Your task to perform on an android device: Open Chrome and go to the settings page Image 0: 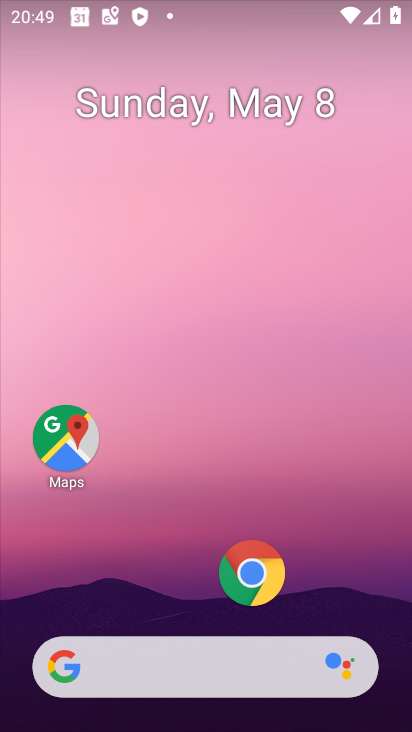
Step 0: click (249, 571)
Your task to perform on an android device: Open Chrome and go to the settings page Image 1: 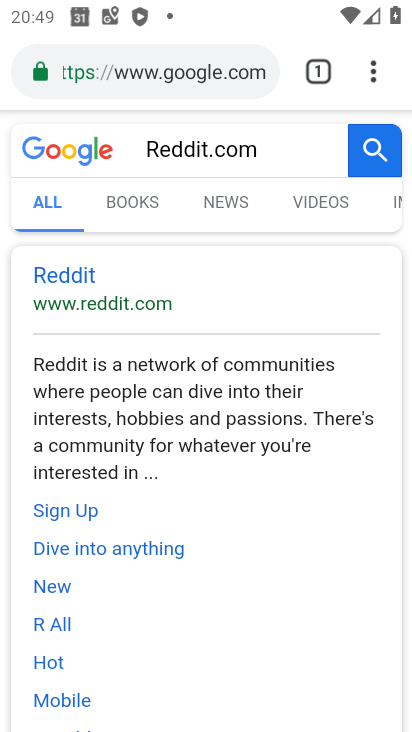
Step 1: click (180, 74)
Your task to perform on an android device: Open Chrome and go to the settings page Image 2: 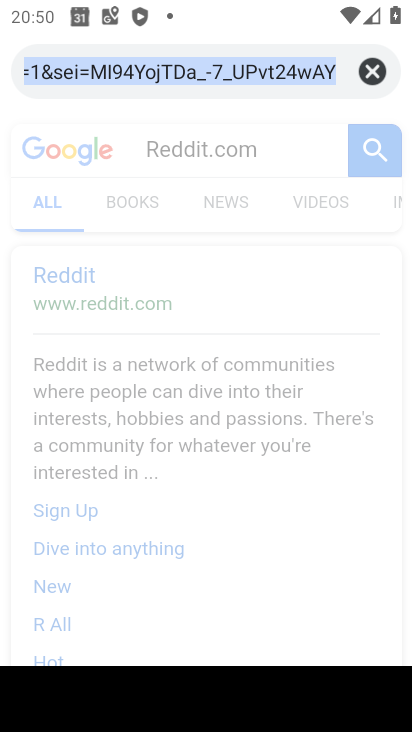
Step 2: type "Open Chrome and go to the settings page"
Your task to perform on an android device: Open Chrome and go to the settings page Image 3: 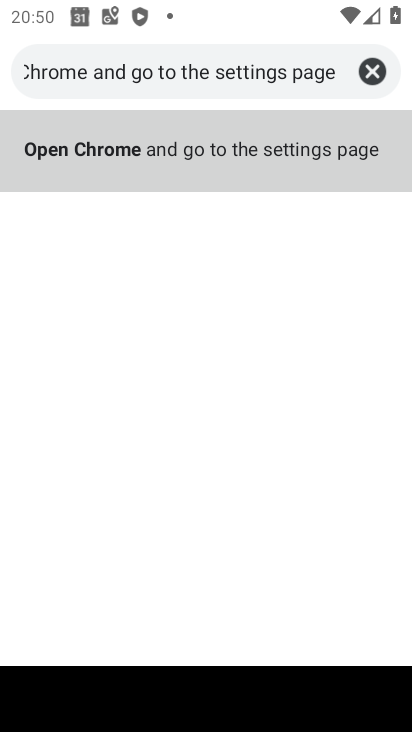
Step 3: click (201, 156)
Your task to perform on an android device: Open Chrome and go to the settings page Image 4: 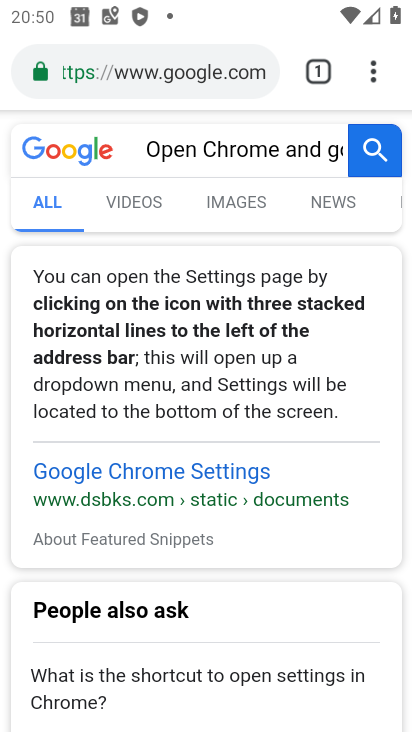
Step 4: click (366, 71)
Your task to perform on an android device: Open Chrome and go to the settings page Image 5: 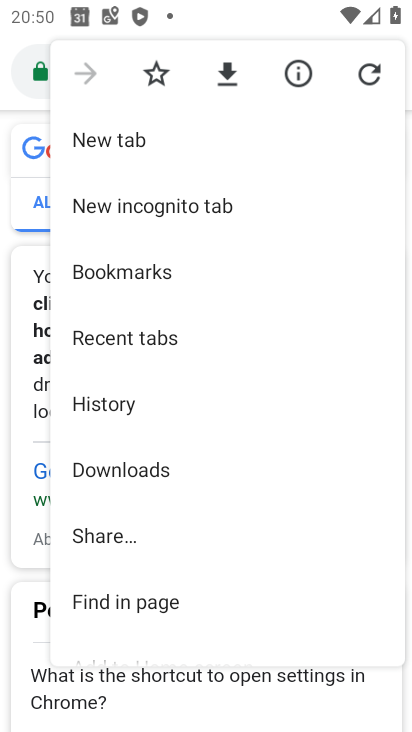
Step 5: drag from (154, 528) to (193, 218)
Your task to perform on an android device: Open Chrome and go to the settings page Image 6: 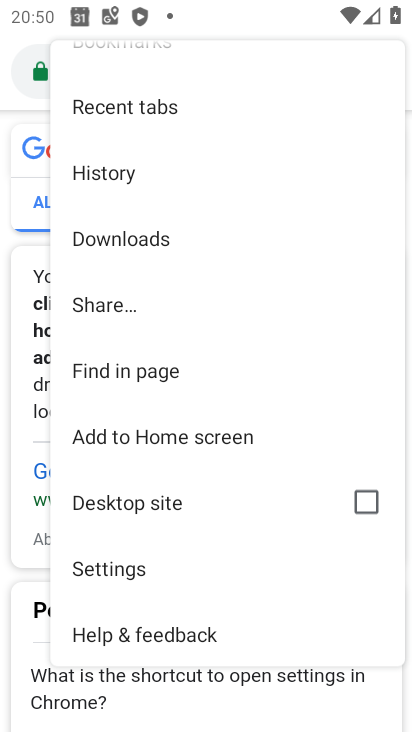
Step 6: click (125, 568)
Your task to perform on an android device: Open Chrome and go to the settings page Image 7: 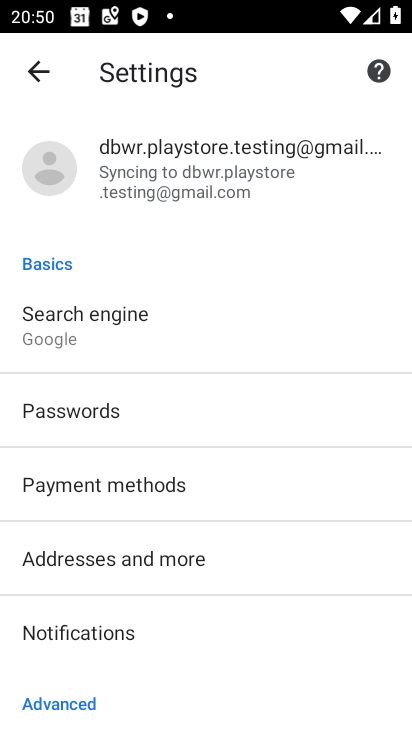
Step 7: task complete